Your task to perform on an android device: add a label to a message in the gmail app Image 0: 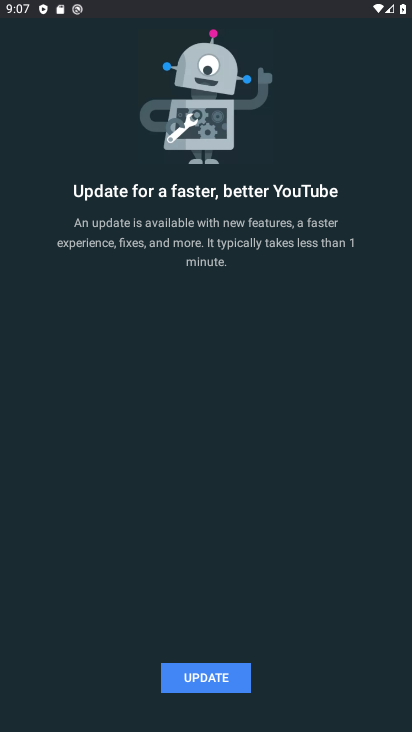
Step 0: press home button
Your task to perform on an android device: add a label to a message in the gmail app Image 1: 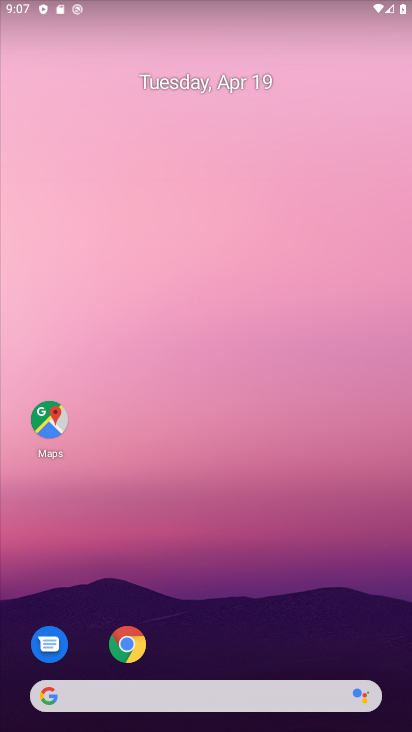
Step 1: drag from (344, 597) to (411, 43)
Your task to perform on an android device: add a label to a message in the gmail app Image 2: 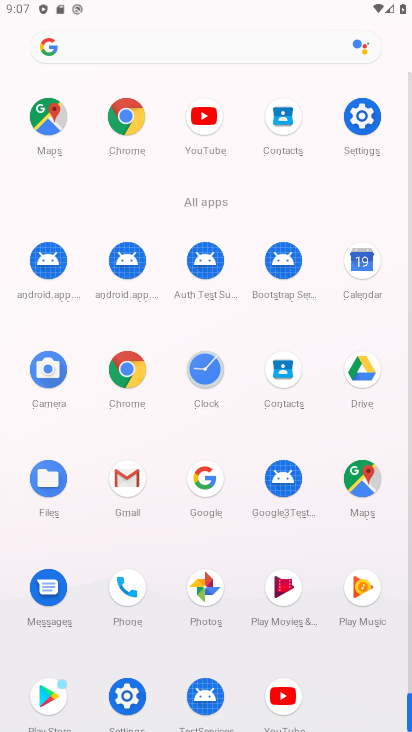
Step 2: click (125, 476)
Your task to perform on an android device: add a label to a message in the gmail app Image 3: 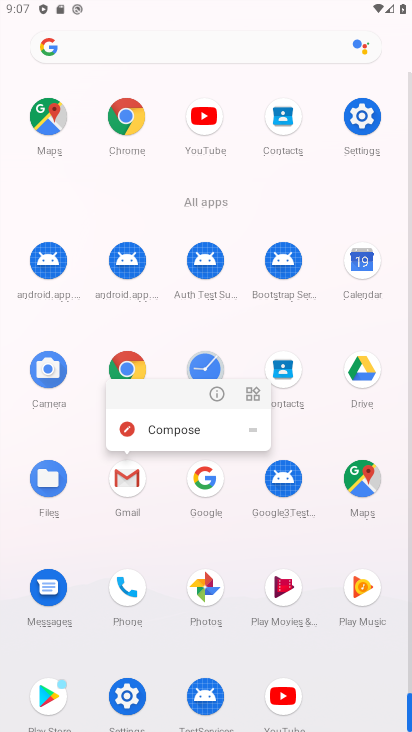
Step 3: click (142, 482)
Your task to perform on an android device: add a label to a message in the gmail app Image 4: 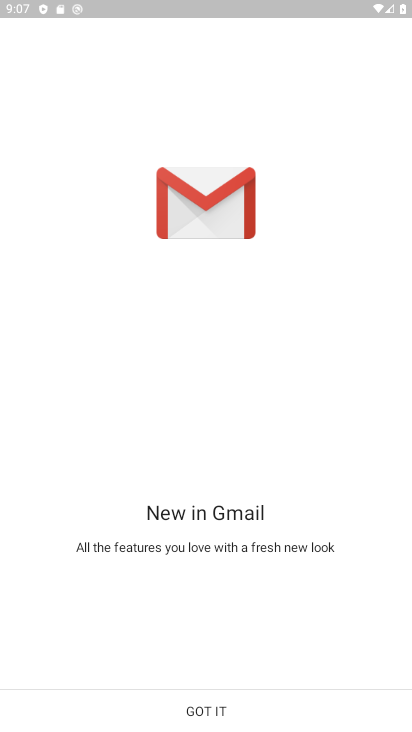
Step 4: click (210, 711)
Your task to perform on an android device: add a label to a message in the gmail app Image 5: 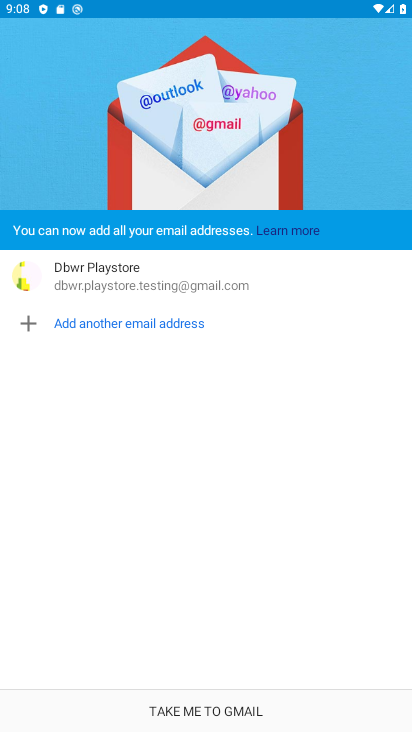
Step 5: click (210, 711)
Your task to perform on an android device: add a label to a message in the gmail app Image 6: 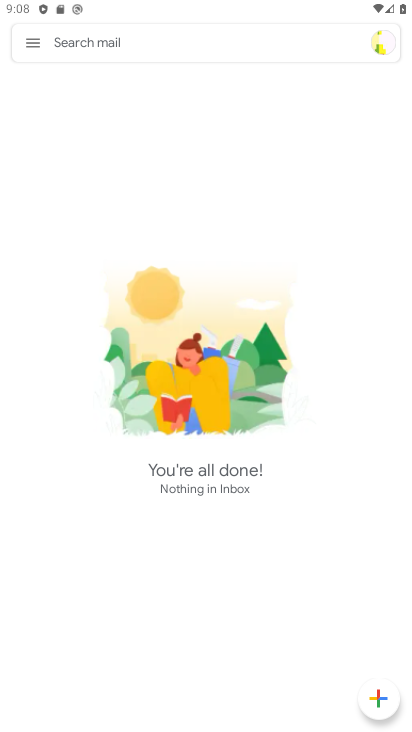
Step 6: task complete